Your task to perform on an android device: add a label to a message in the gmail app Image 0: 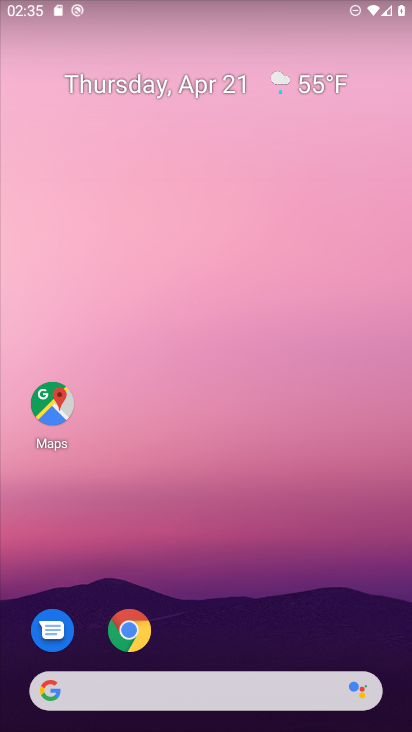
Step 0: drag from (193, 636) to (210, 123)
Your task to perform on an android device: add a label to a message in the gmail app Image 1: 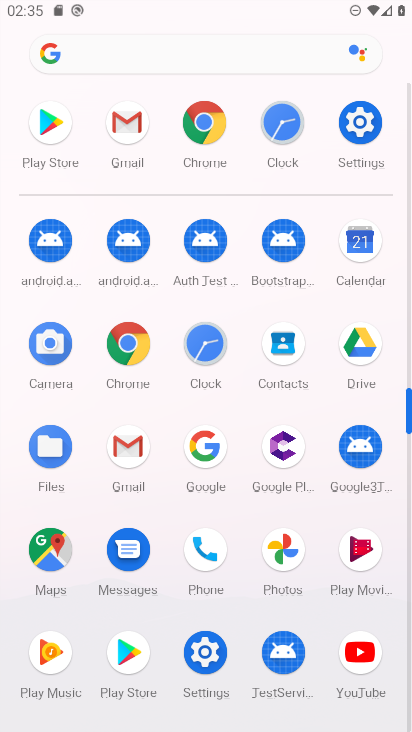
Step 1: click (134, 158)
Your task to perform on an android device: add a label to a message in the gmail app Image 2: 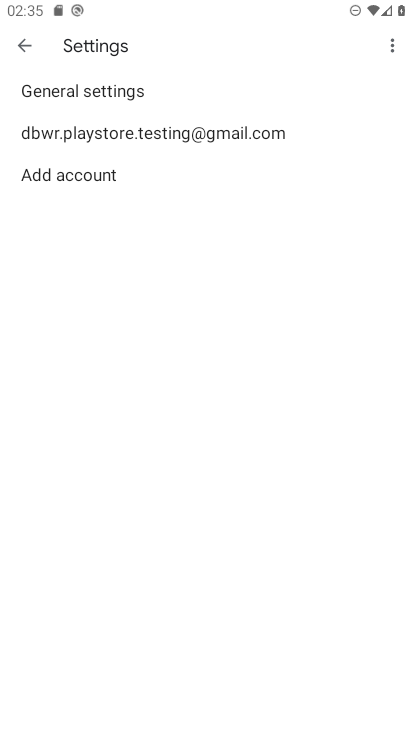
Step 2: click (13, 34)
Your task to perform on an android device: add a label to a message in the gmail app Image 3: 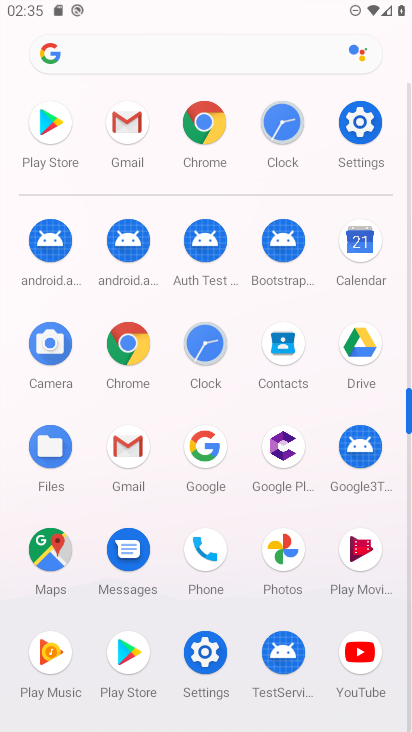
Step 3: click (137, 453)
Your task to perform on an android device: add a label to a message in the gmail app Image 4: 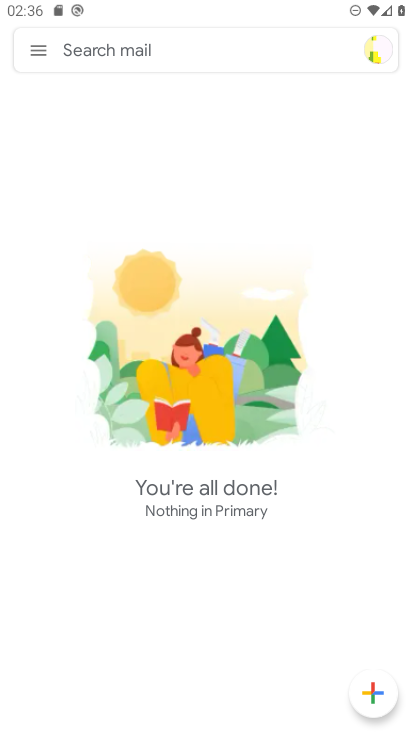
Step 4: task complete